Your task to perform on an android device: Open Yahoo.com Image 0: 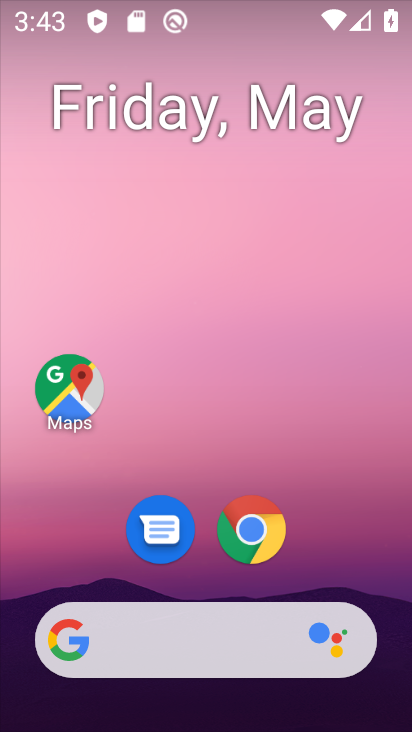
Step 0: click (267, 545)
Your task to perform on an android device: Open Yahoo.com Image 1: 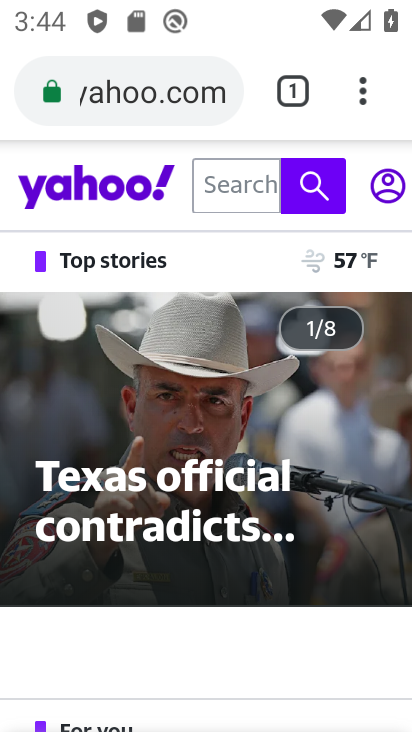
Step 1: task complete